Your task to perform on an android device: Show me recent news Image 0: 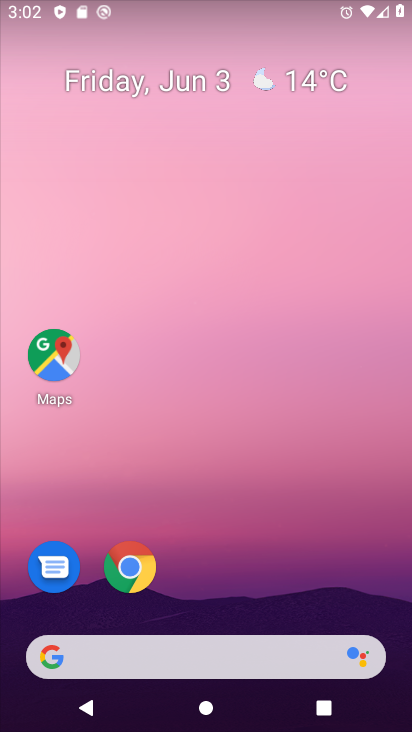
Step 0: drag from (301, 659) to (319, 203)
Your task to perform on an android device: Show me recent news Image 1: 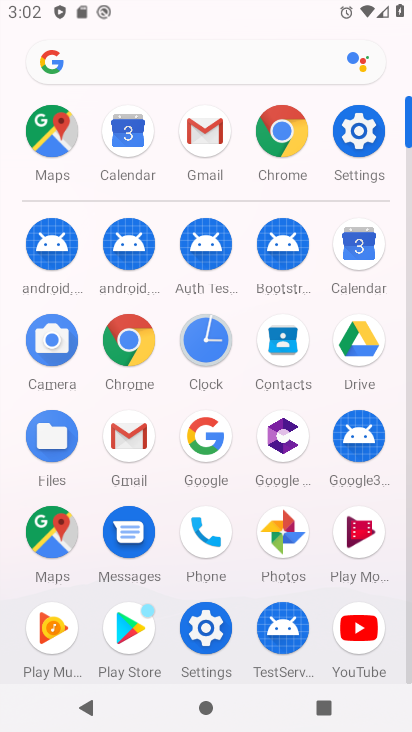
Step 1: click (104, 57)
Your task to perform on an android device: Show me recent news Image 2: 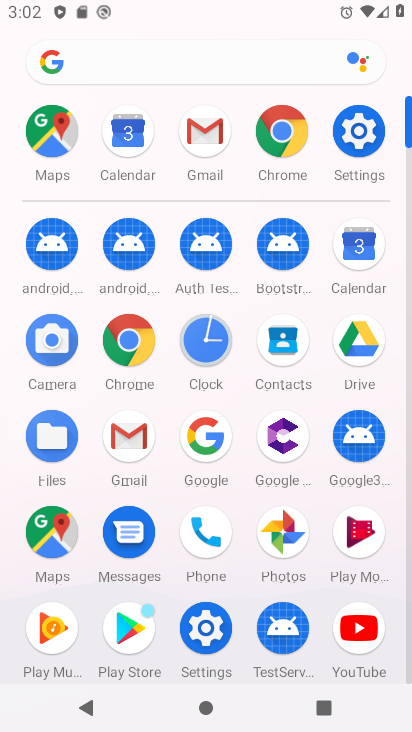
Step 2: click (102, 65)
Your task to perform on an android device: Show me recent news Image 3: 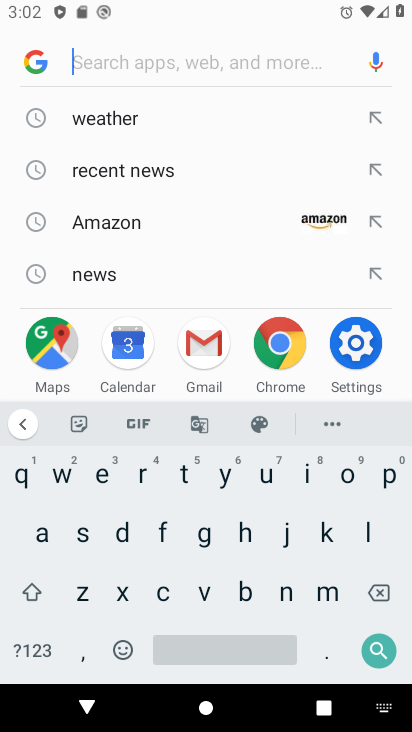
Step 3: click (148, 166)
Your task to perform on an android device: Show me recent news Image 4: 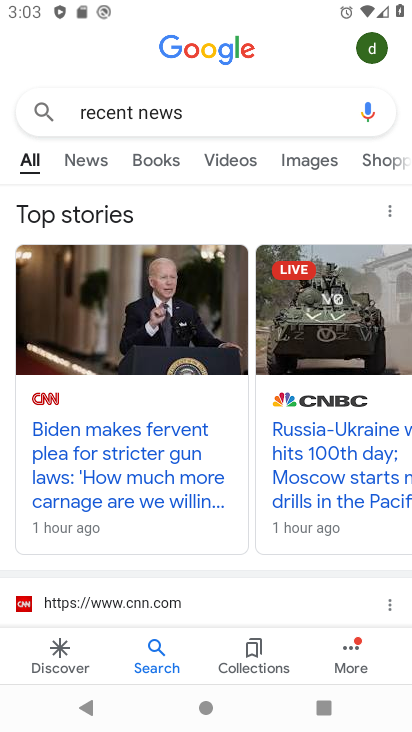
Step 4: task complete